Your task to perform on an android device: turn on improve location accuracy Image 0: 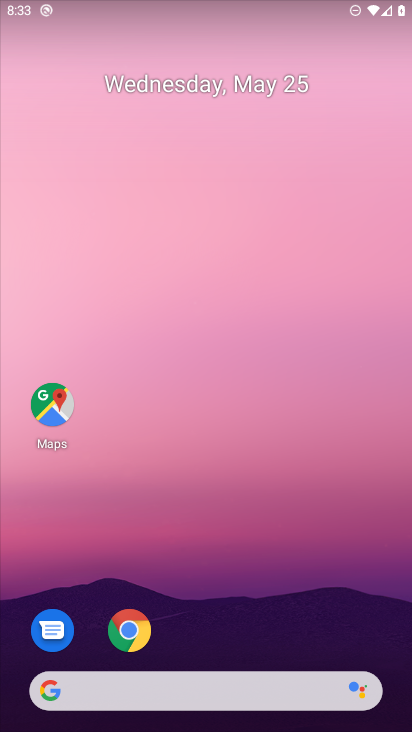
Step 0: drag from (185, 547) to (237, 241)
Your task to perform on an android device: turn on improve location accuracy Image 1: 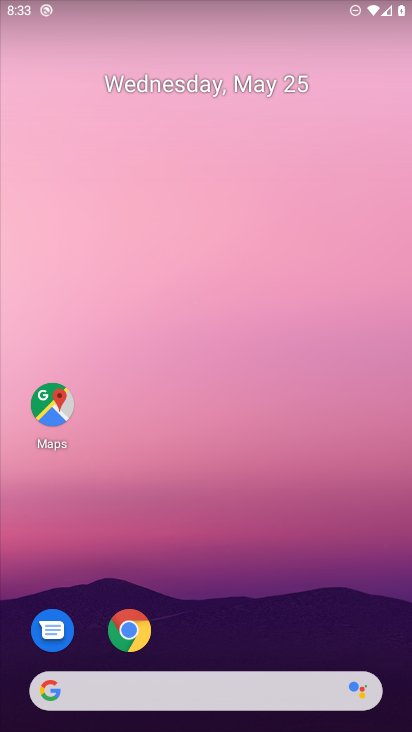
Step 1: drag from (239, 670) to (289, 182)
Your task to perform on an android device: turn on improve location accuracy Image 2: 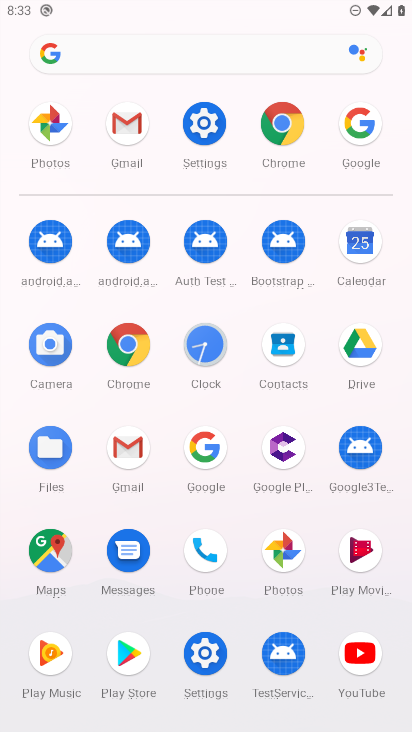
Step 2: click (211, 108)
Your task to perform on an android device: turn on improve location accuracy Image 3: 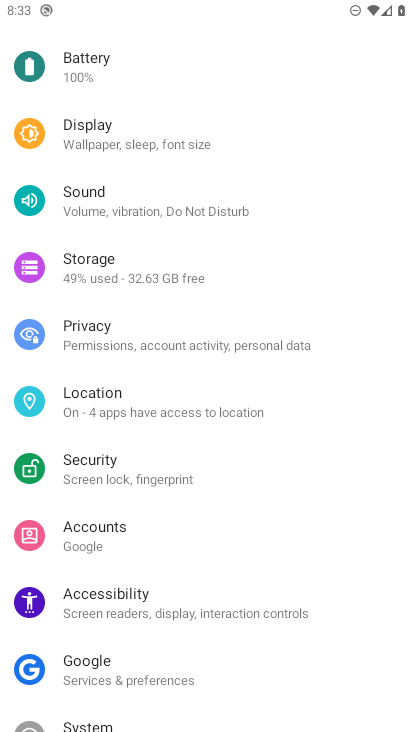
Step 3: click (123, 401)
Your task to perform on an android device: turn on improve location accuracy Image 4: 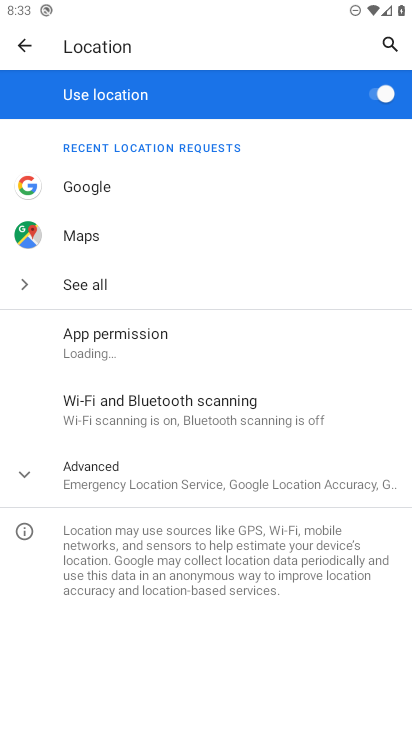
Step 4: click (133, 476)
Your task to perform on an android device: turn on improve location accuracy Image 5: 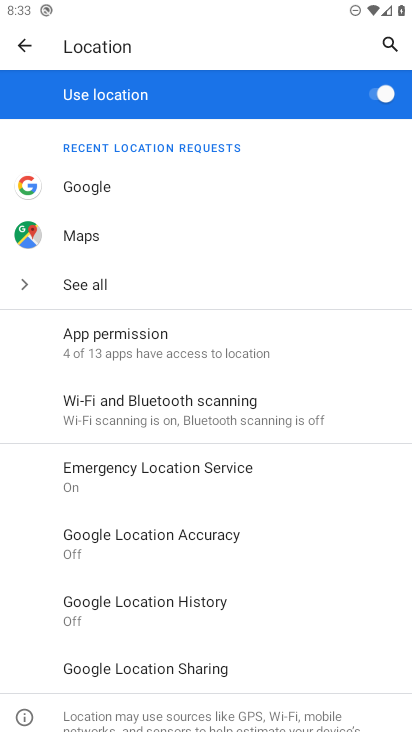
Step 5: click (173, 533)
Your task to perform on an android device: turn on improve location accuracy Image 6: 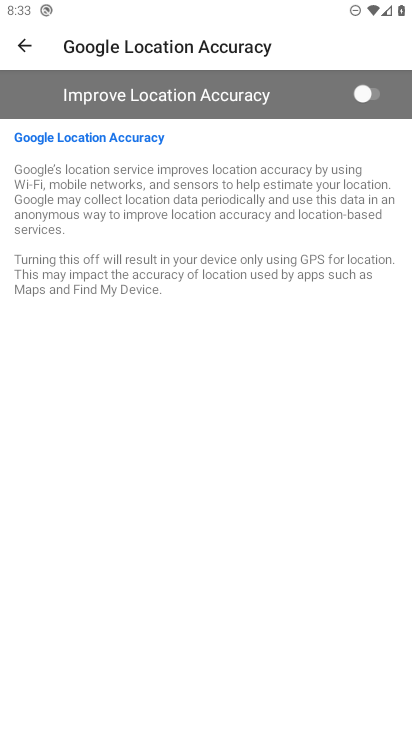
Step 6: click (377, 94)
Your task to perform on an android device: turn on improve location accuracy Image 7: 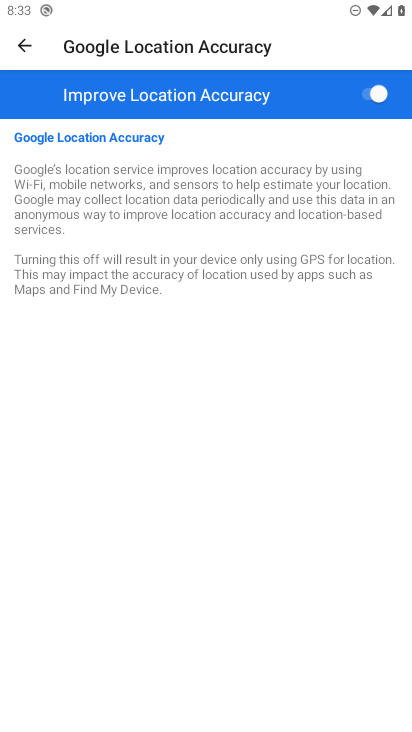
Step 7: task complete